Your task to perform on an android device: turn on translation in the chrome app Image 0: 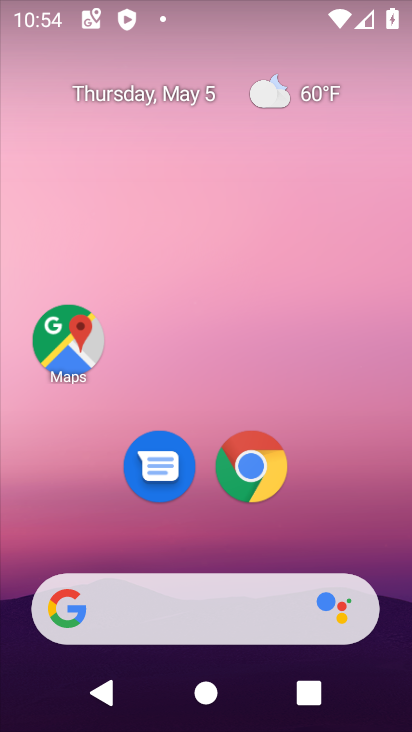
Step 0: click (248, 477)
Your task to perform on an android device: turn on translation in the chrome app Image 1: 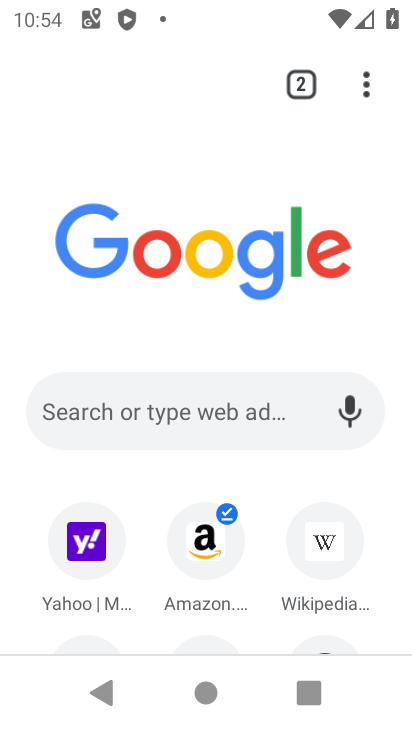
Step 1: click (368, 81)
Your task to perform on an android device: turn on translation in the chrome app Image 2: 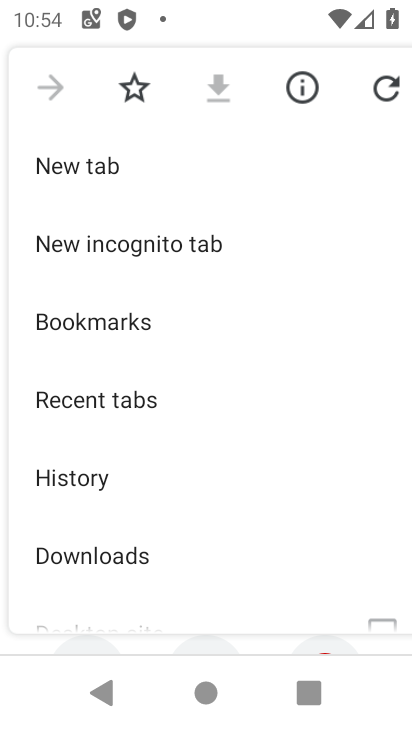
Step 2: drag from (147, 572) to (205, 185)
Your task to perform on an android device: turn on translation in the chrome app Image 3: 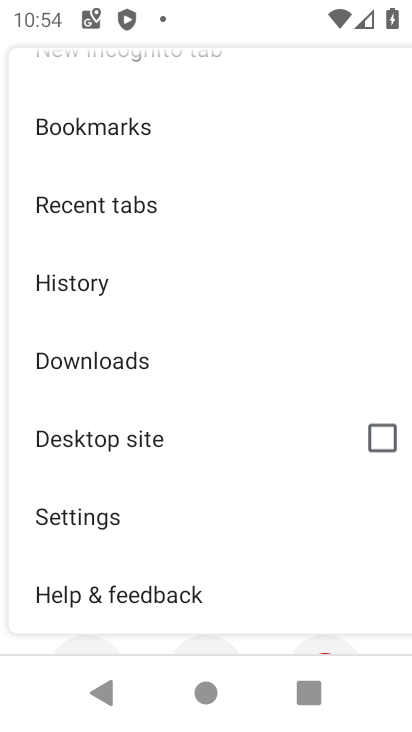
Step 3: click (102, 523)
Your task to perform on an android device: turn on translation in the chrome app Image 4: 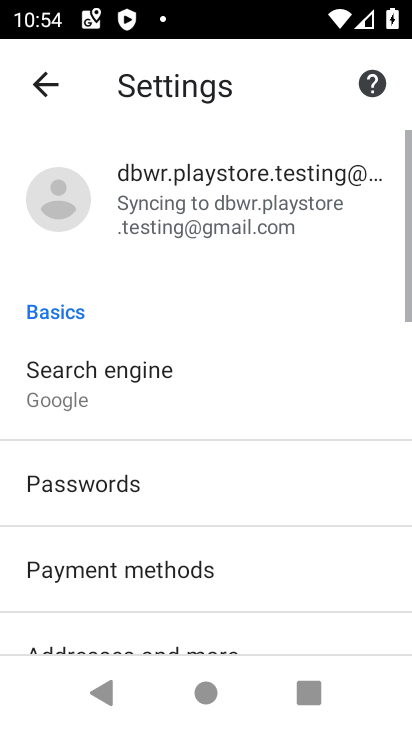
Step 4: drag from (127, 622) to (261, 244)
Your task to perform on an android device: turn on translation in the chrome app Image 5: 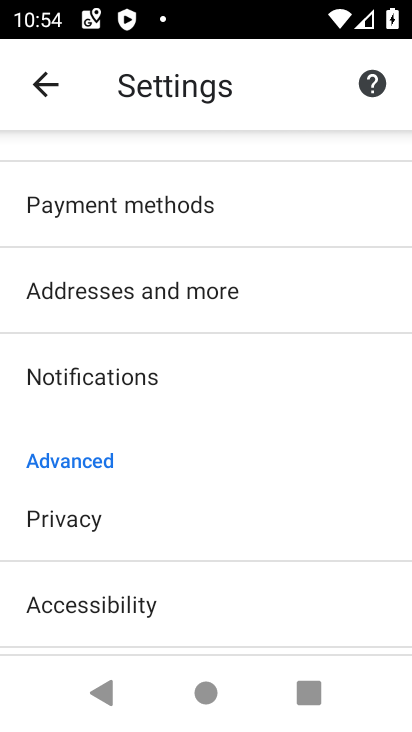
Step 5: drag from (163, 638) to (201, 229)
Your task to perform on an android device: turn on translation in the chrome app Image 6: 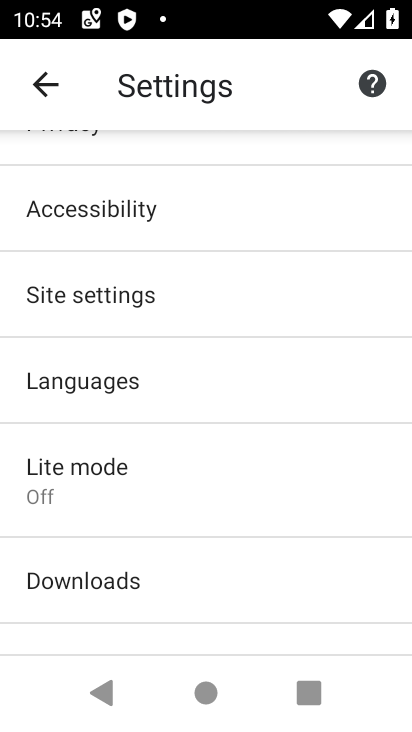
Step 6: click (76, 389)
Your task to perform on an android device: turn on translation in the chrome app Image 7: 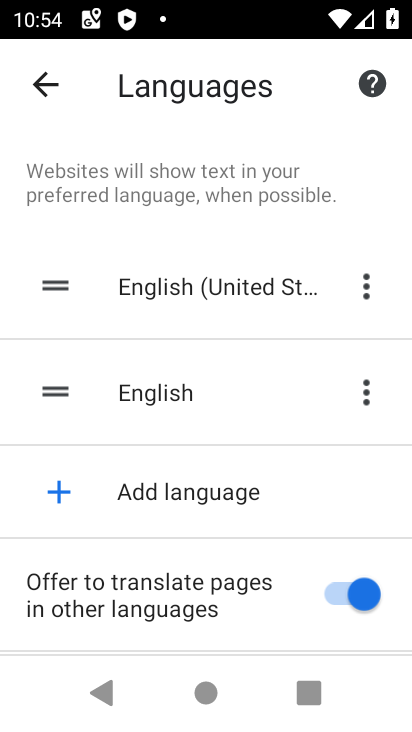
Step 7: task complete